Your task to perform on an android device: toggle wifi Image 0: 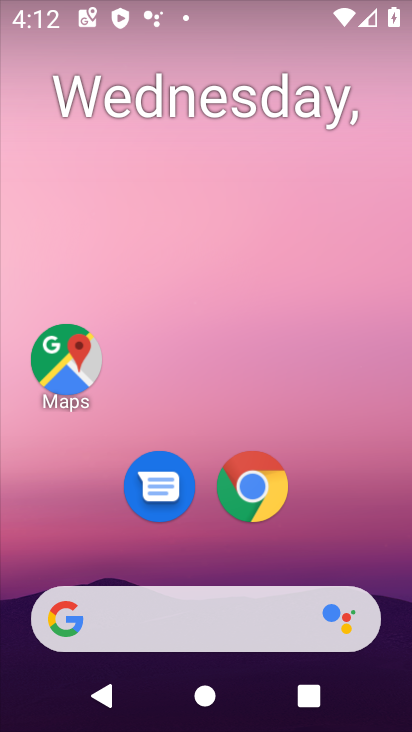
Step 0: click (202, 361)
Your task to perform on an android device: toggle wifi Image 1: 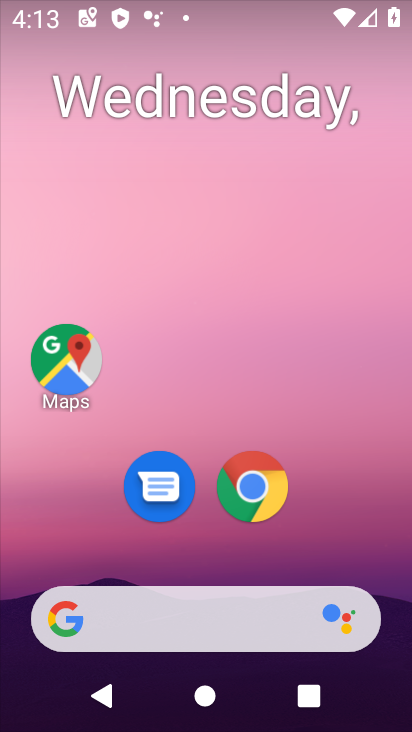
Step 1: drag from (241, 601) to (213, 119)
Your task to perform on an android device: toggle wifi Image 2: 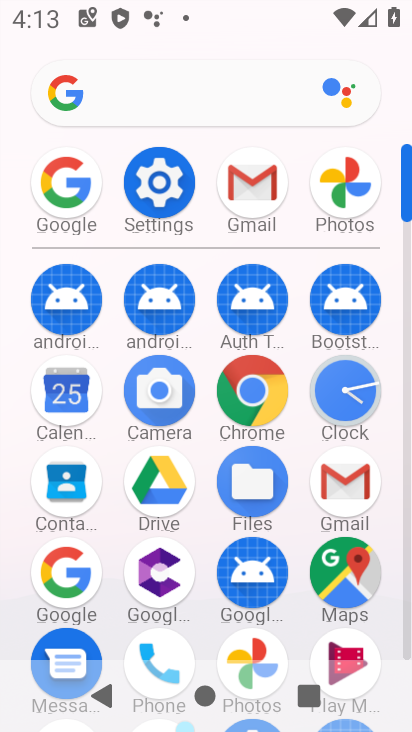
Step 2: click (158, 194)
Your task to perform on an android device: toggle wifi Image 3: 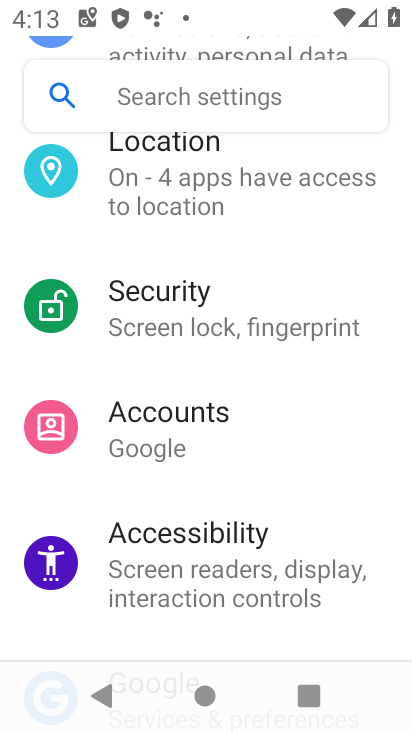
Step 3: click (188, 97)
Your task to perform on an android device: toggle wifi Image 4: 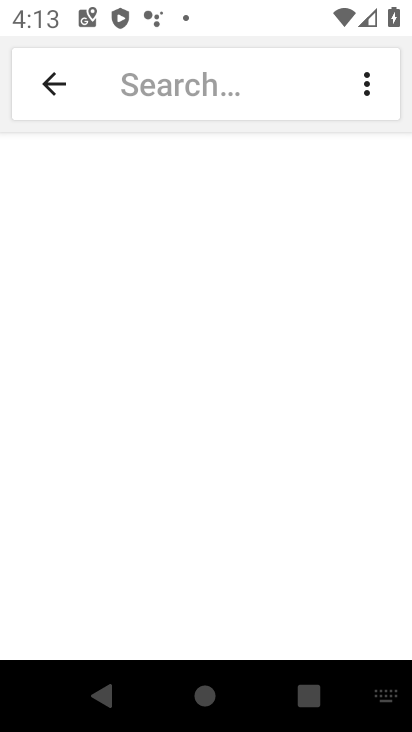
Step 4: click (56, 79)
Your task to perform on an android device: toggle wifi Image 5: 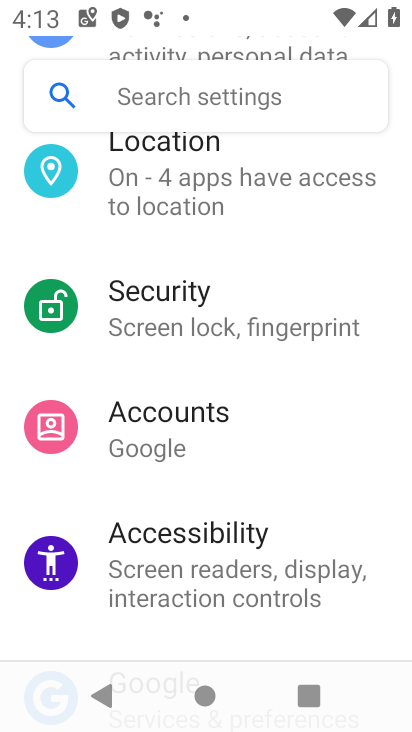
Step 5: drag from (234, 191) to (212, 583)
Your task to perform on an android device: toggle wifi Image 6: 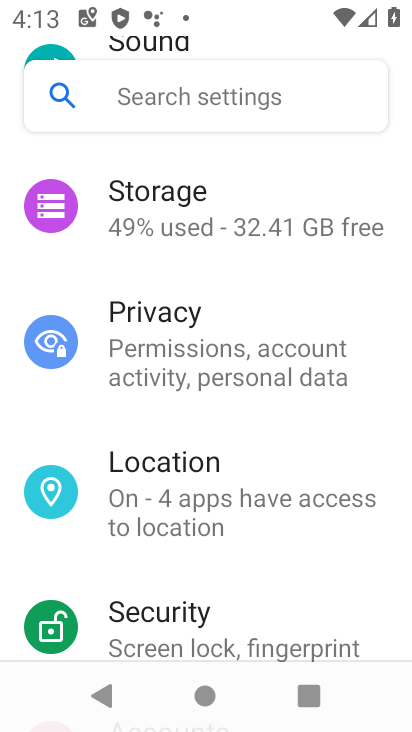
Step 6: drag from (213, 174) to (194, 591)
Your task to perform on an android device: toggle wifi Image 7: 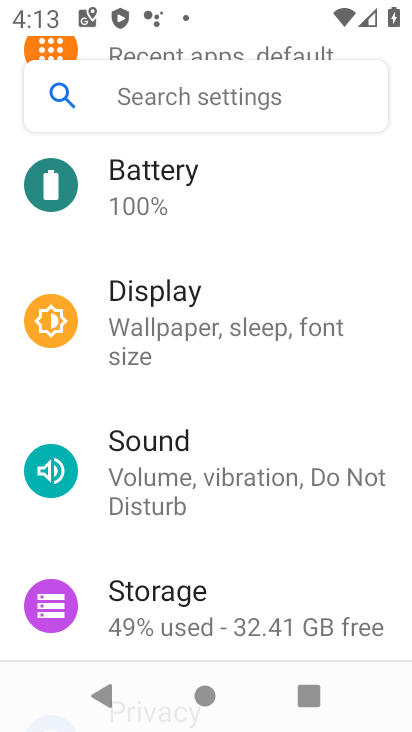
Step 7: drag from (188, 164) to (172, 599)
Your task to perform on an android device: toggle wifi Image 8: 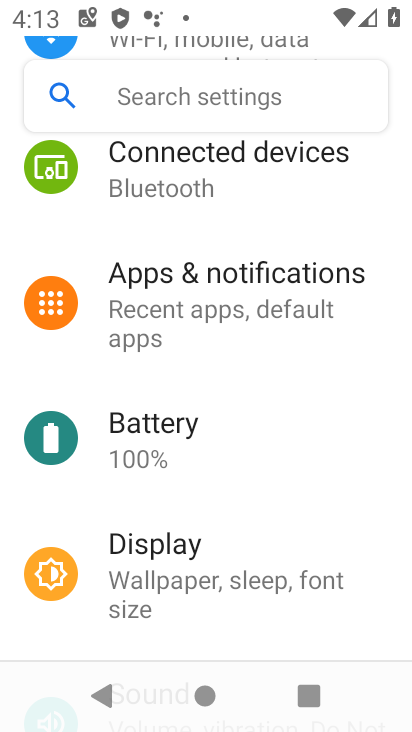
Step 8: drag from (255, 171) to (270, 543)
Your task to perform on an android device: toggle wifi Image 9: 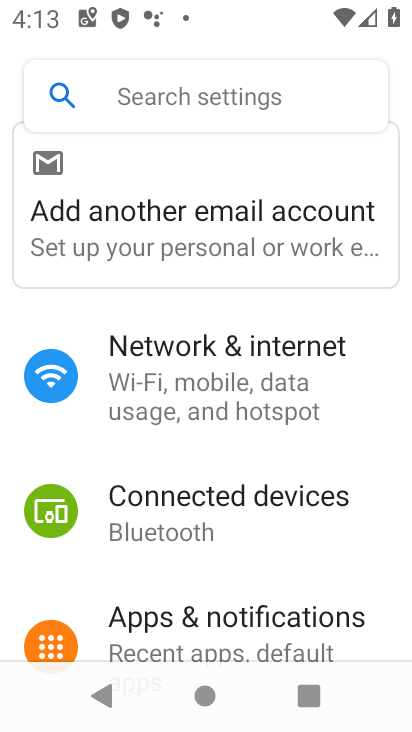
Step 9: click (242, 392)
Your task to perform on an android device: toggle wifi Image 10: 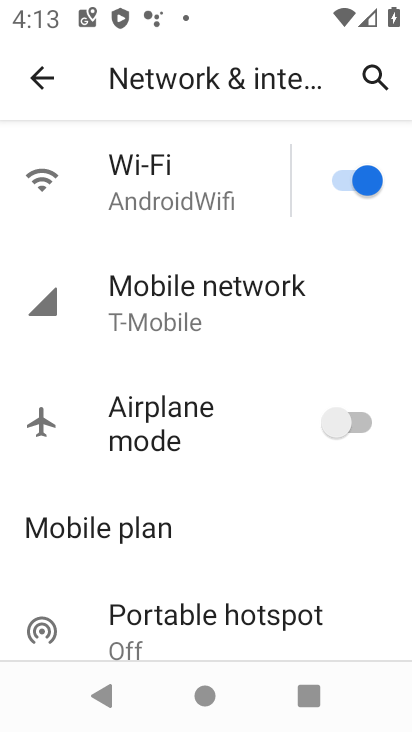
Step 10: click (343, 179)
Your task to perform on an android device: toggle wifi Image 11: 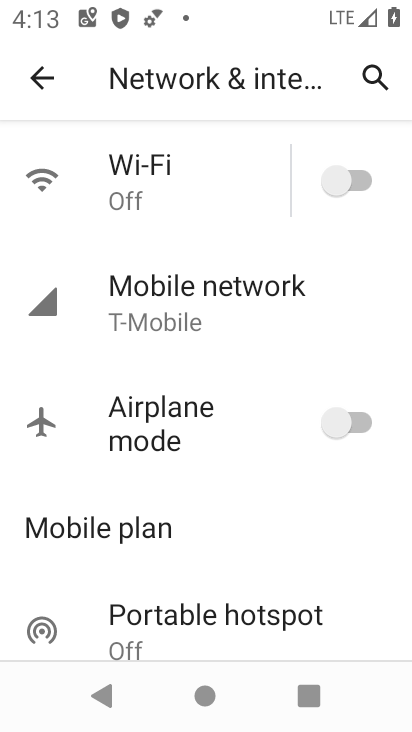
Step 11: task complete